Your task to perform on an android device: Search for Mexican restaurants on Maps Image 0: 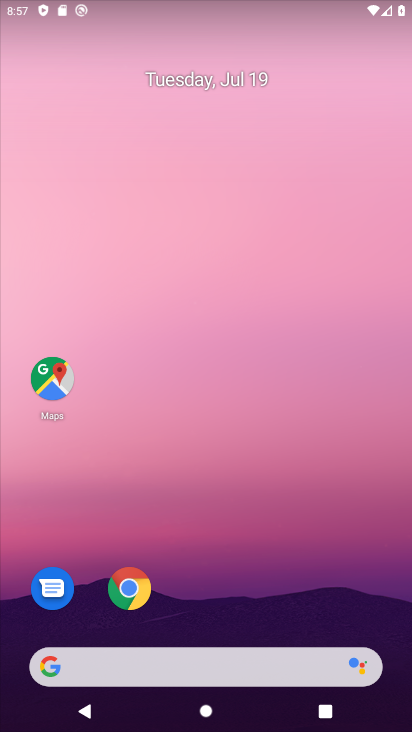
Step 0: drag from (244, 605) to (134, 140)
Your task to perform on an android device: Search for Mexican restaurants on Maps Image 1: 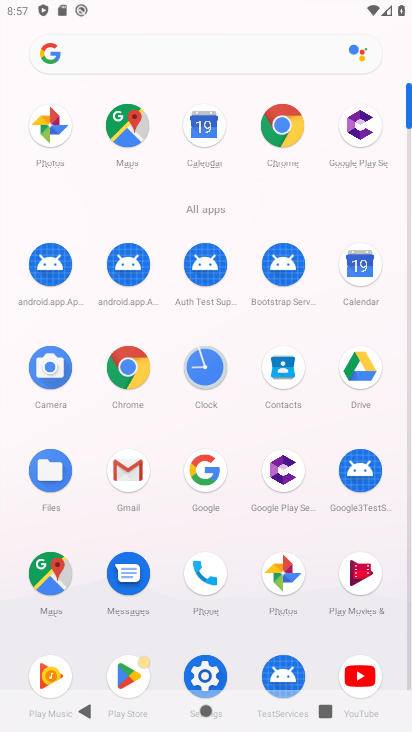
Step 1: click (40, 577)
Your task to perform on an android device: Search for Mexican restaurants on Maps Image 2: 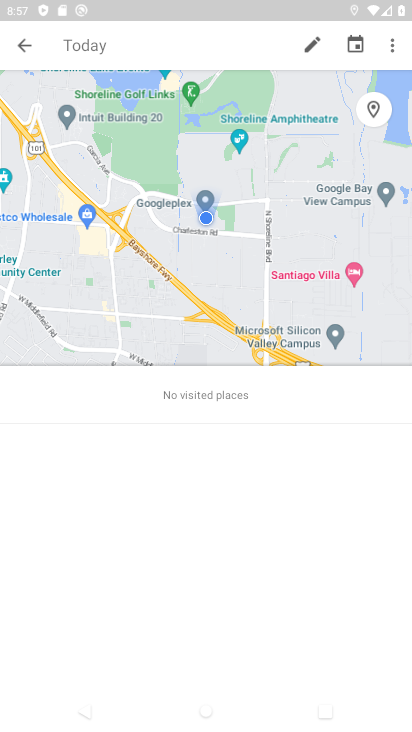
Step 2: click (392, 44)
Your task to perform on an android device: Search for Mexican restaurants on Maps Image 3: 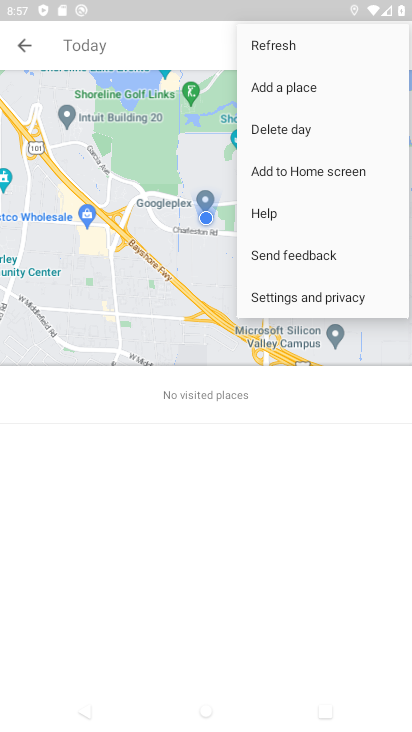
Step 3: click (19, 47)
Your task to perform on an android device: Search for Mexican restaurants on Maps Image 4: 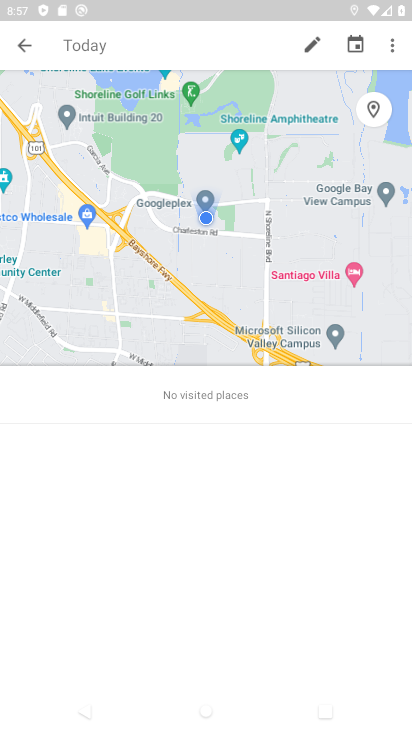
Step 4: click (28, 45)
Your task to perform on an android device: Search for Mexican restaurants on Maps Image 5: 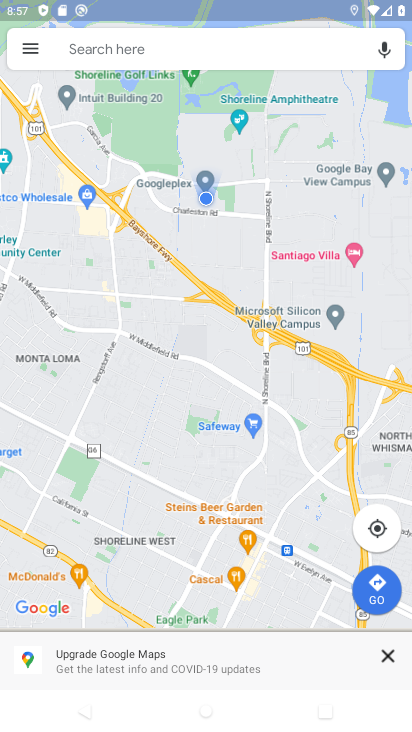
Step 5: click (86, 43)
Your task to perform on an android device: Search for Mexican restaurants on Maps Image 6: 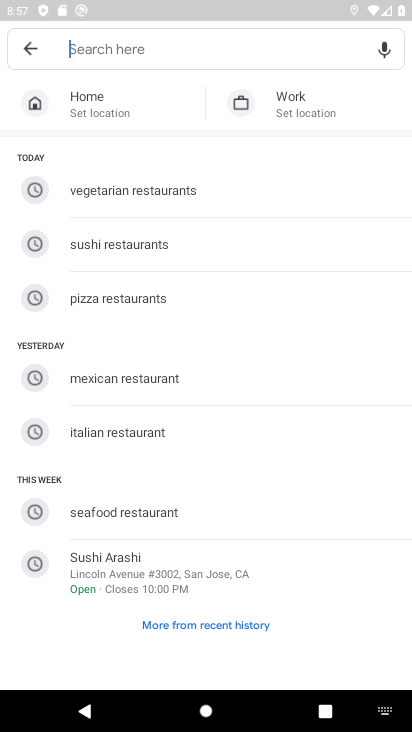
Step 6: click (142, 375)
Your task to perform on an android device: Search for Mexican restaurants on Maps Image 7: 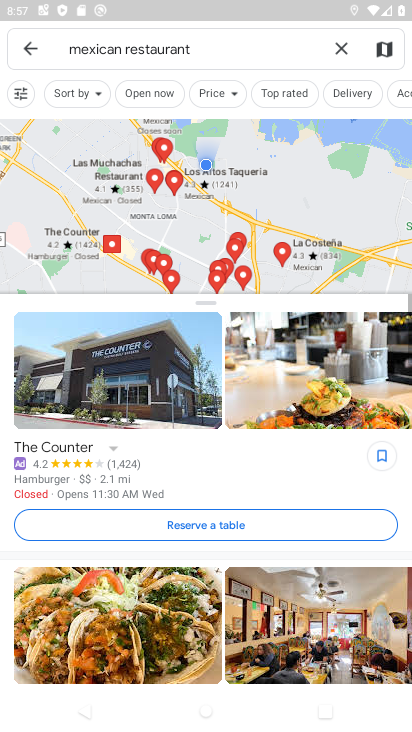
Step 7: task complete